Your task to perform on an android device: View the shopping cart on ebay.com. Add "macbook pro" to the cart on ebay.com Image 0: 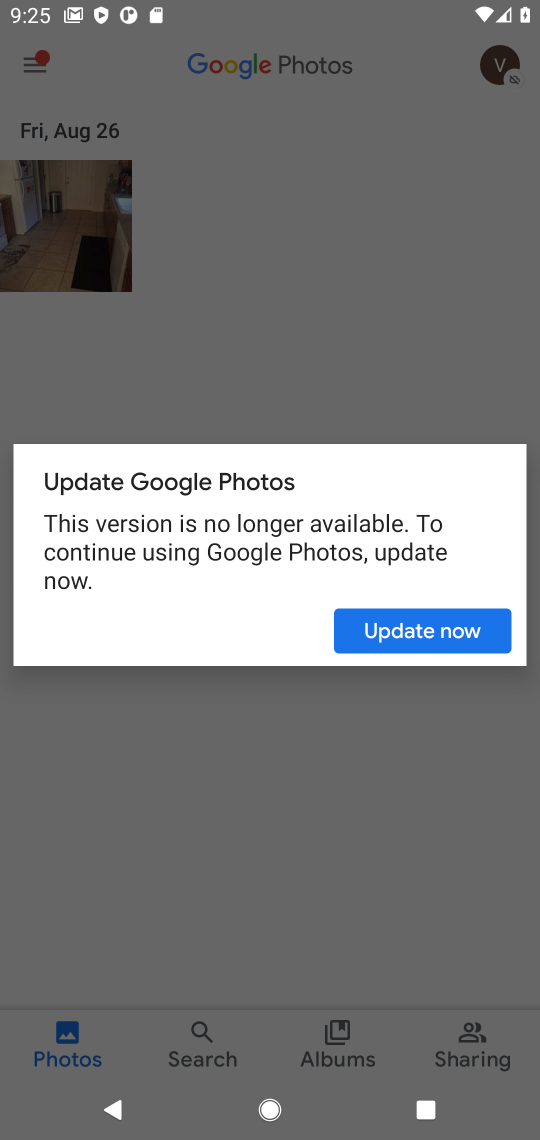
Step 0: press home button
Your task to perform on an android device: View the shopping cart on ebay.com. Add "macbook pro" to the cart on ebay.com Image 1: 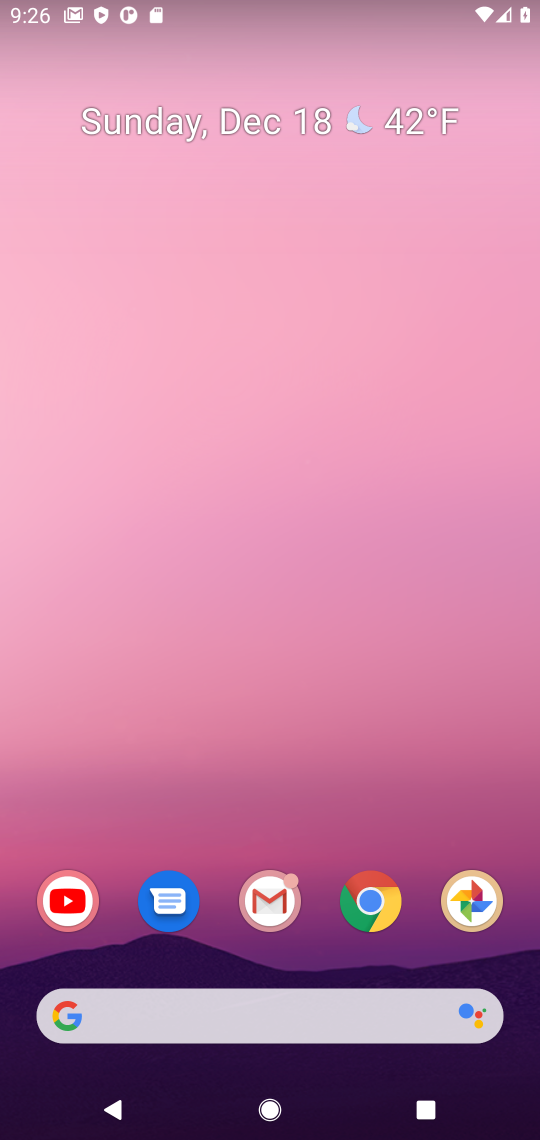
Step 1: click (361, 910)
Your task to perform on an android device: View the shopping cart on ebay.com. Add "macbook pro" to the cart on ebay.com Image 2: 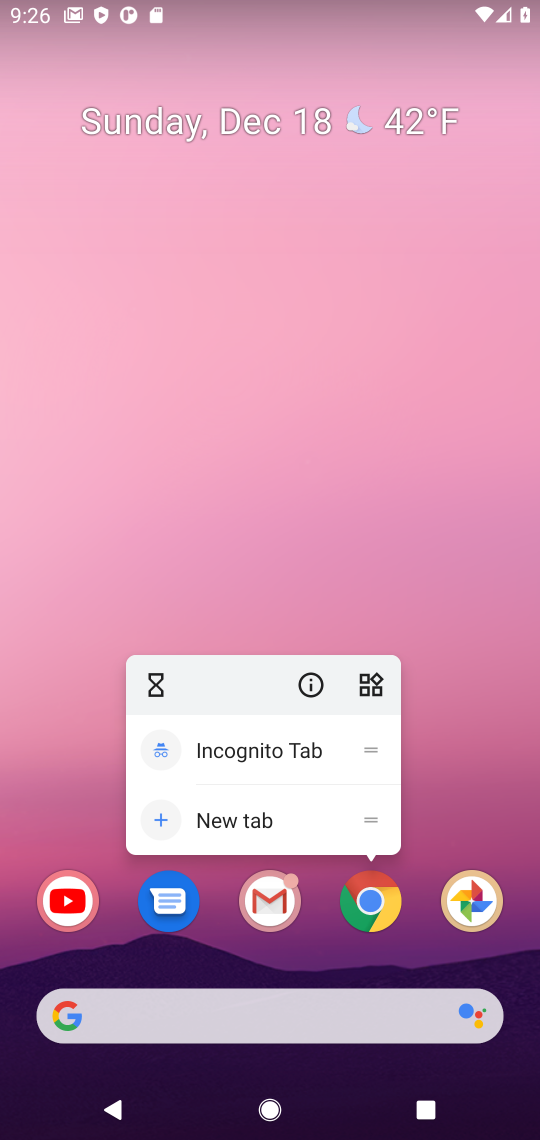
Step 2: click (361, 918)
Your task to perform on an android device: View the shopping cart on ebay.com. Add "macbook pro" to the cart on ebay.com Image 3: 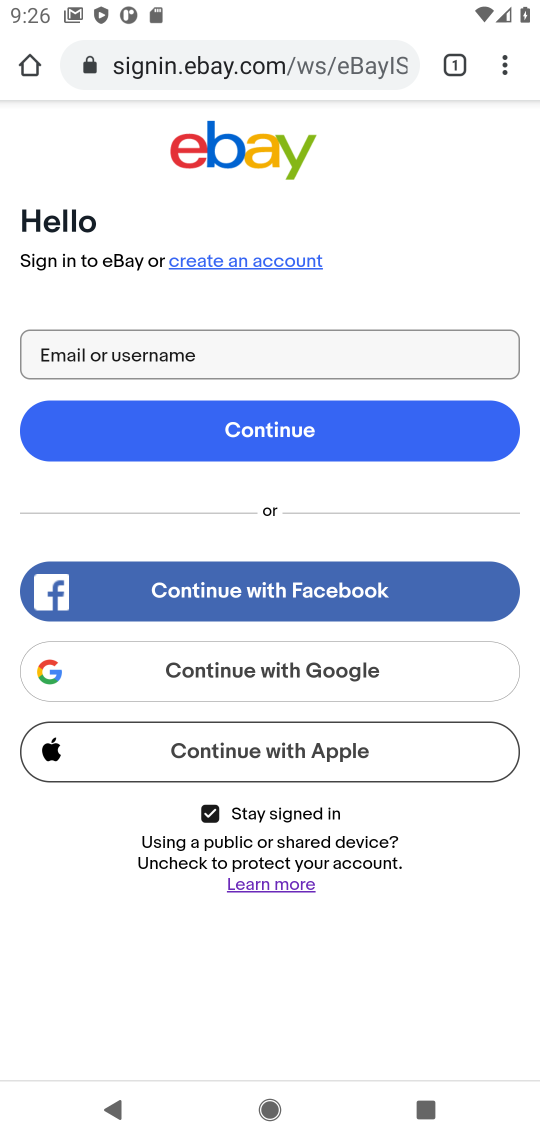
Step 3: click (242, 47)
Your task to perform on an android device: View the shopping cart on ebay.com. Add "macbook pro" to the cart on ebay.com Image 4: 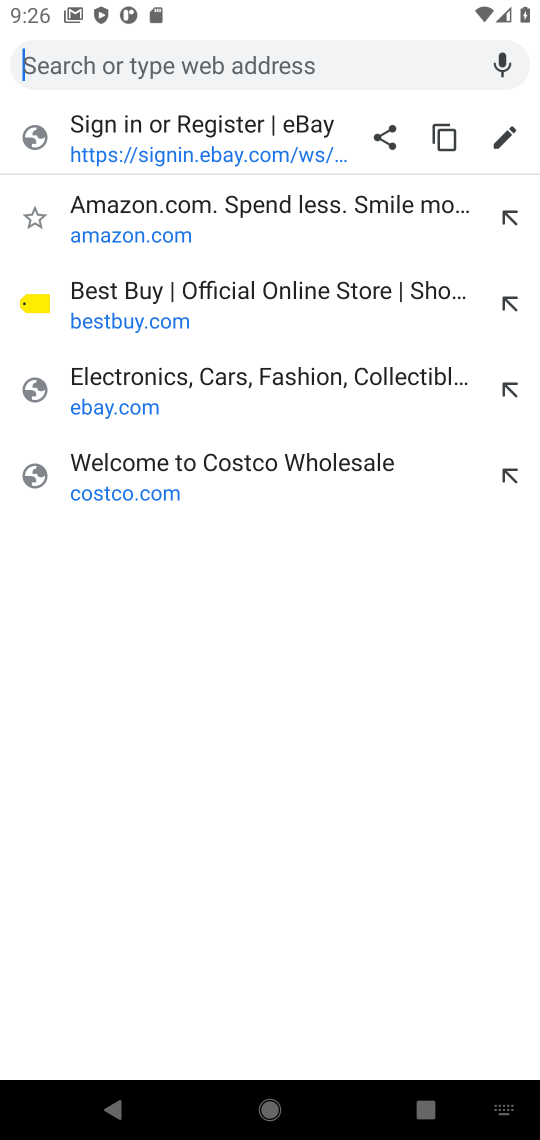
Step 4: click (304, 382)
Your task to perform on an android device: View the shopping cart on ebay.com. Add "macbook pro" to the cart on ebay.com Image 5: 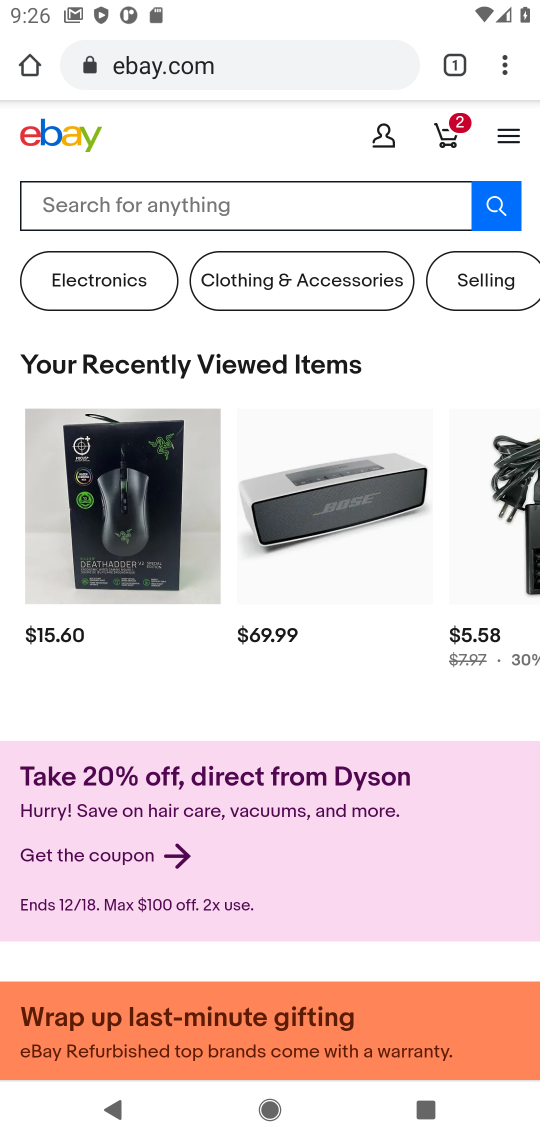
Step 5: click (82, 208)
Your task to perform on an android device: View the shopping cart on ebay.com. Add "macbook pro" to the cart on ebay.com Image 6: 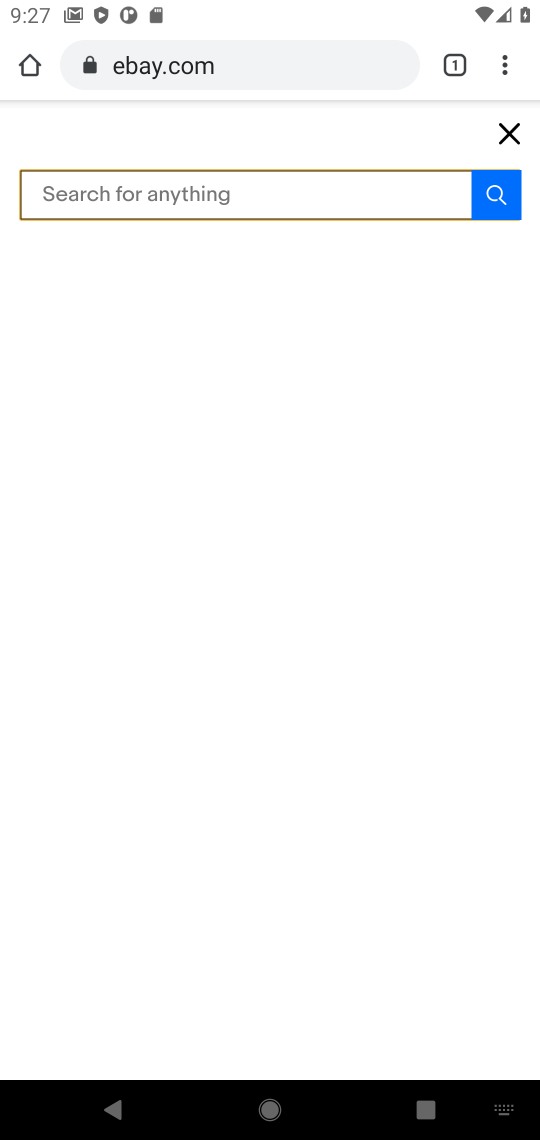
Step 6: type "macbook pro"
Your task to perform on an android device: View the shopping cart on ebay.com. Add "macbook pro" to the cart on ebay.com Image 7: 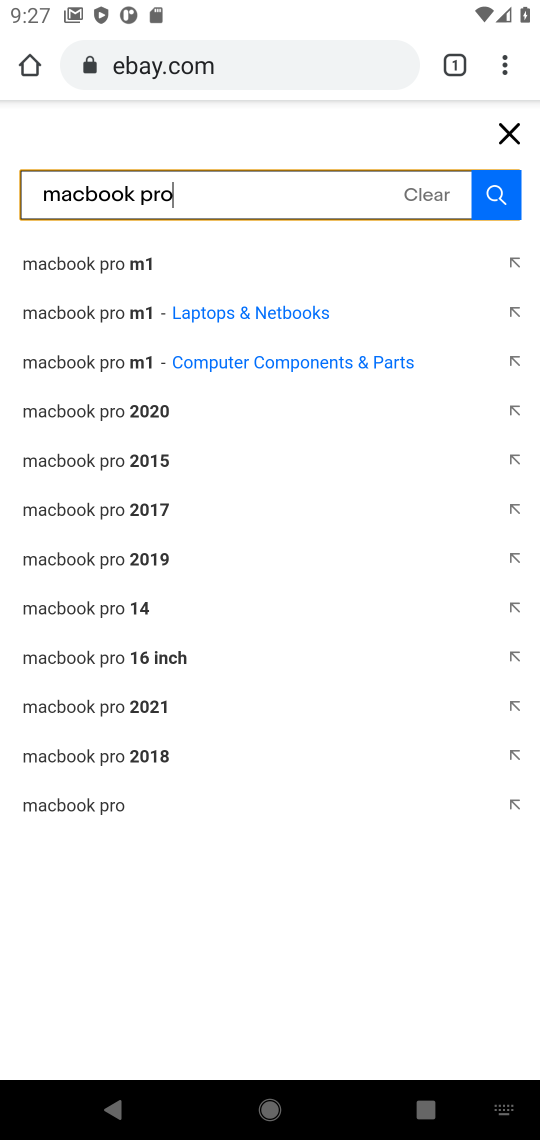
Step 7: click (481, 197)
Your task to perform on an android device: View the shopping cart on ebay.com. Add "macbook pro" to the cart on ebay.com Image 8: 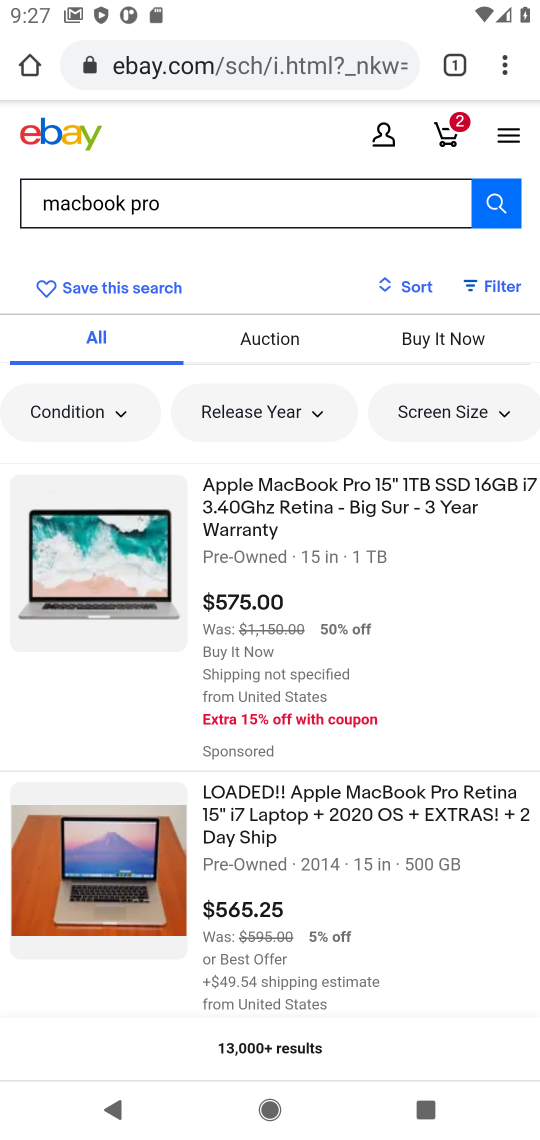
Step 8: click (229, 469)
Your task to perform on an android device: View the shopping cart on ebay.com. Add "macbook pro" to the cart on ebay.com Image 9: 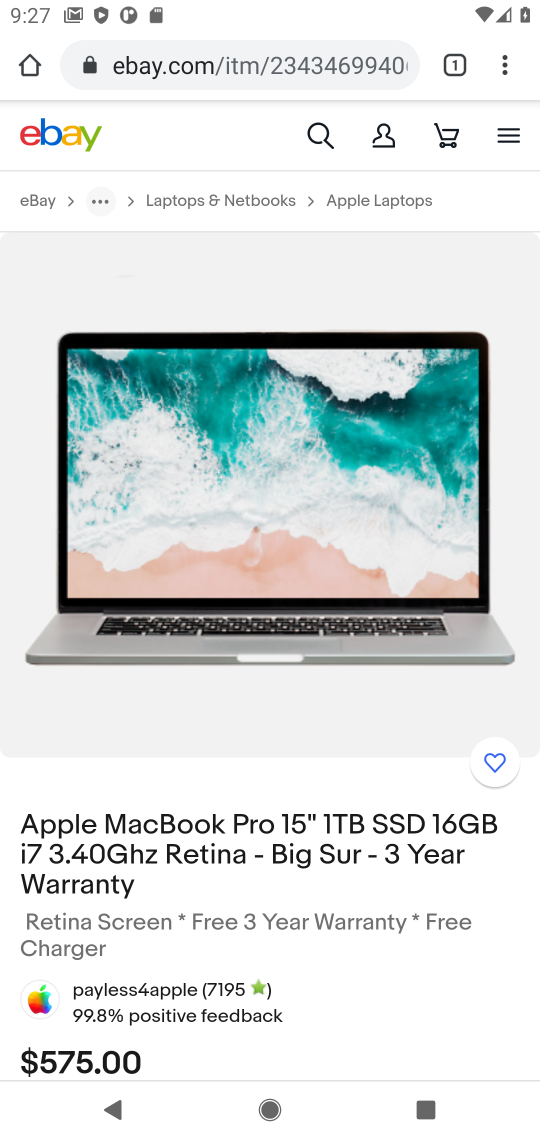
Step 9: drag from (259, 961) to (307, 407)
Your task to perform on an android device: View the shopping cart on ebay.com. Add "macbook pro" to the cart on ebay.com Image 10: 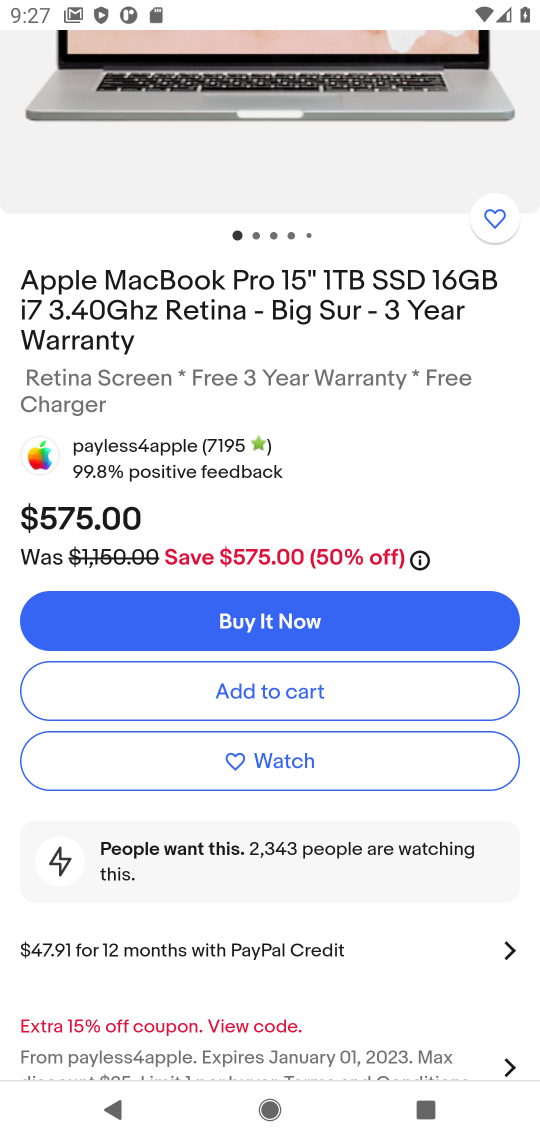
Step 10: click (287, 683)
Your task to perform on an android device: View the shopping cart on ebay.com. Add "macbook pro" to the cart on ebay.com Image 11: 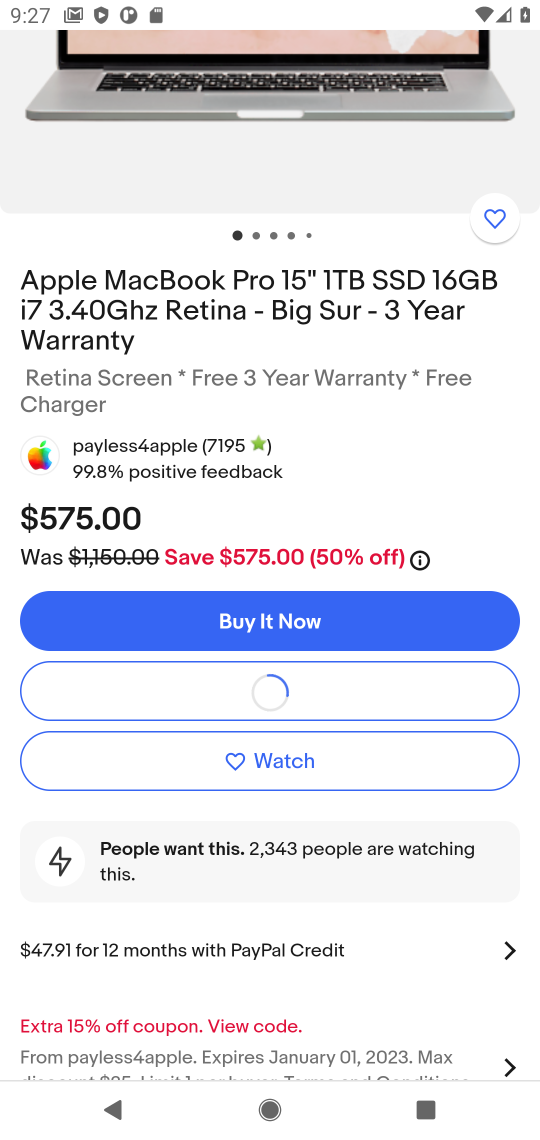
Step 11: task complete